Your task to perform on an android device: Find coffee shops on Maps Image 0: 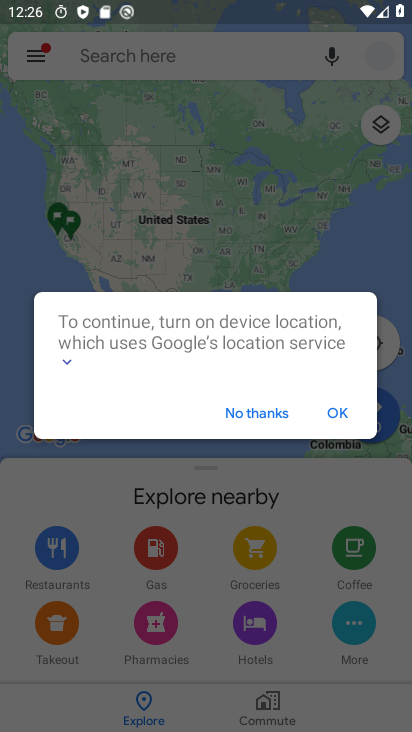
Step 0: press home button
Your task to perform on an android device: Find coffee shops on Maps Image 1: 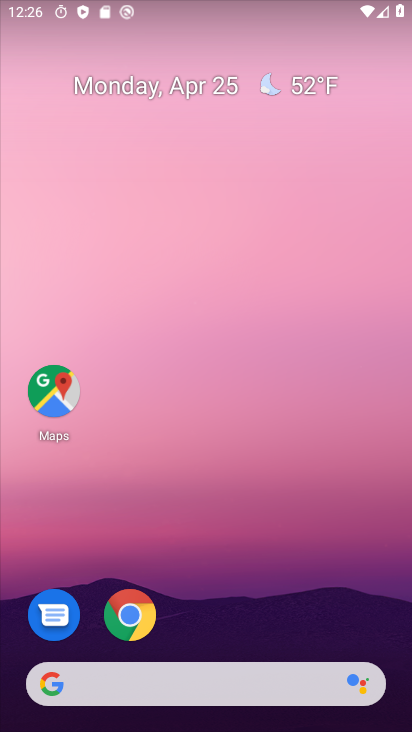
Step 1: drag from (180, 652) to (263, 17)
Your task to perform on an android device: Find coffee shops on Maps Image 2: 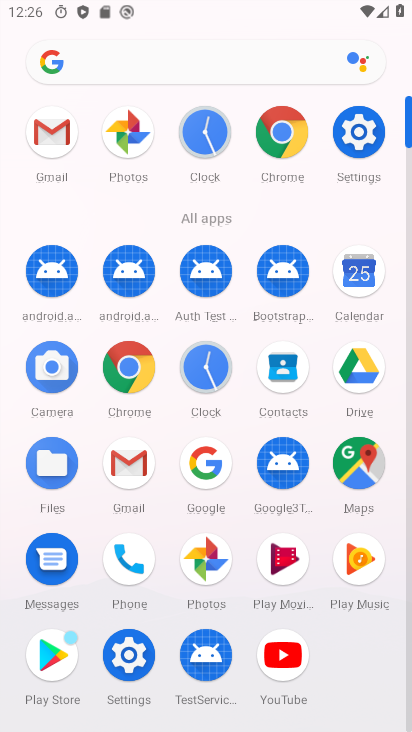
Step 2: click (365, 455)
Your task to perform on an android device: Find coffee shops on Maps Image 3: 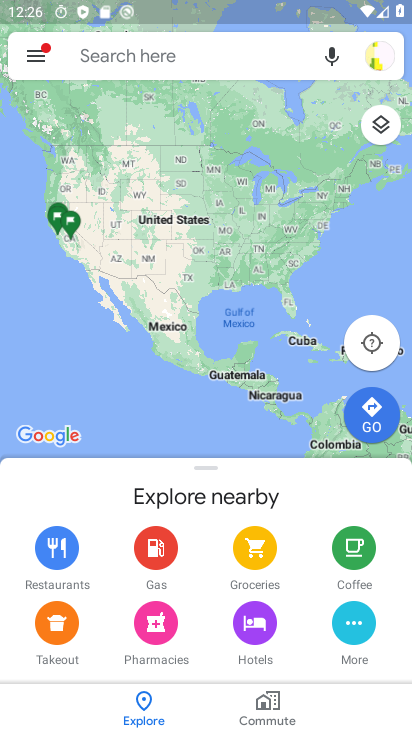
Step 3: click (166, 62)
Your task to perform on an android device: Find coffee shops on Maps Image 4: 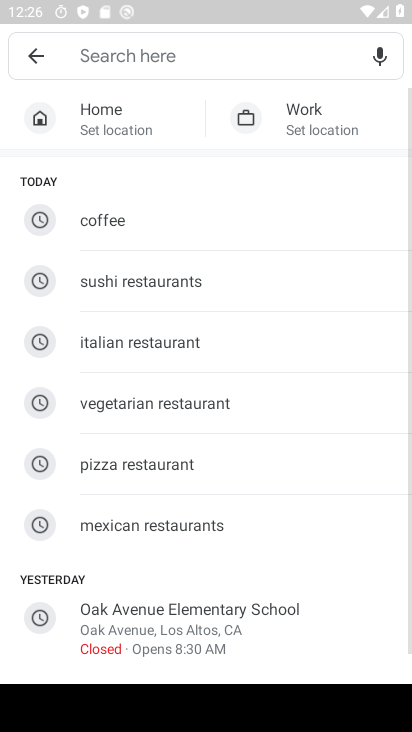
Step 4: click (88, 209)
Your task to perform on an android device: Find coffee shops on Maps Image 5: 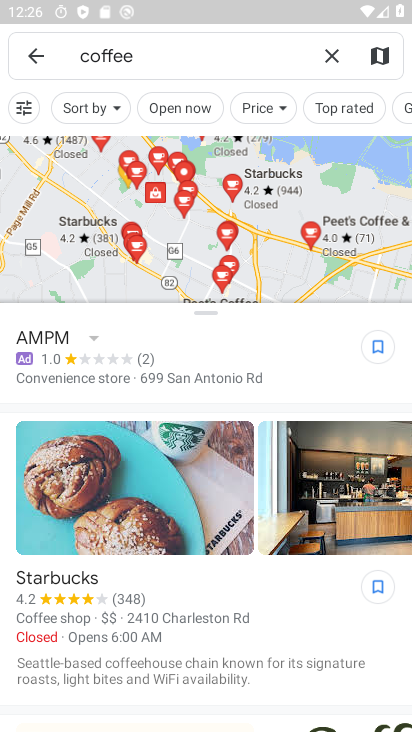
Step 5: task complete